Your task to perform on an android device: Open internet settings Image 0: 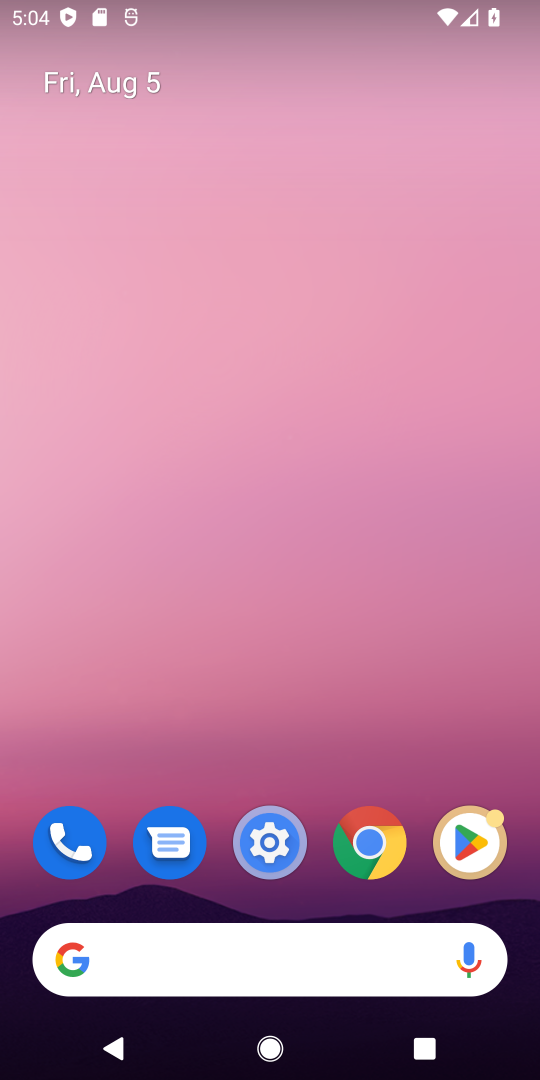
Step 0: press home button
Your task to perform on an android device: Open internet settings Image 1: 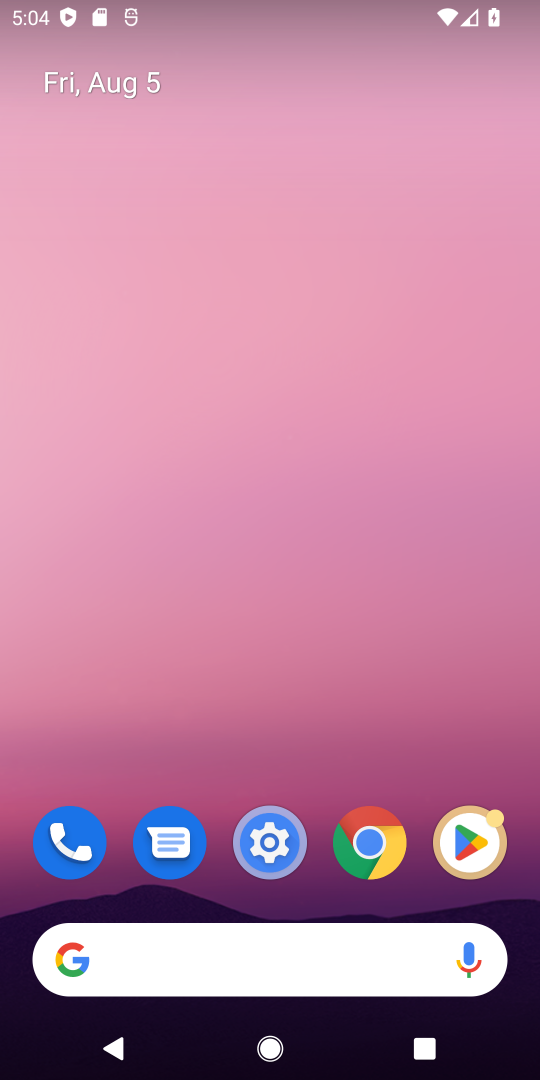
Step 1: drag from (303, 742) to (179, 105)
Your task to perform on an android device: Open internet settings Image 2: 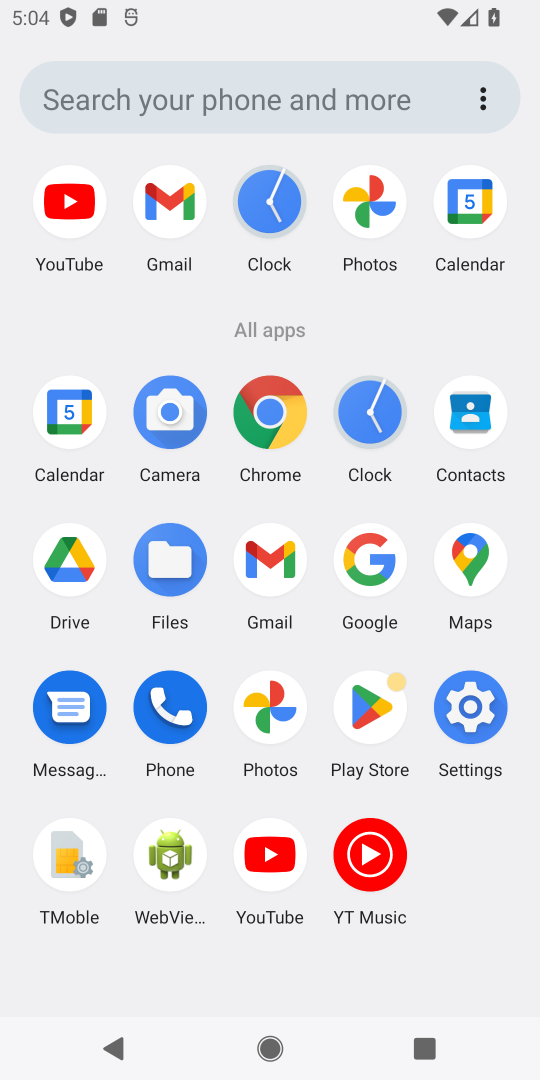
Step 2: click (459, 709)
Your task to perform on an android device: Open internet settings Image 3: 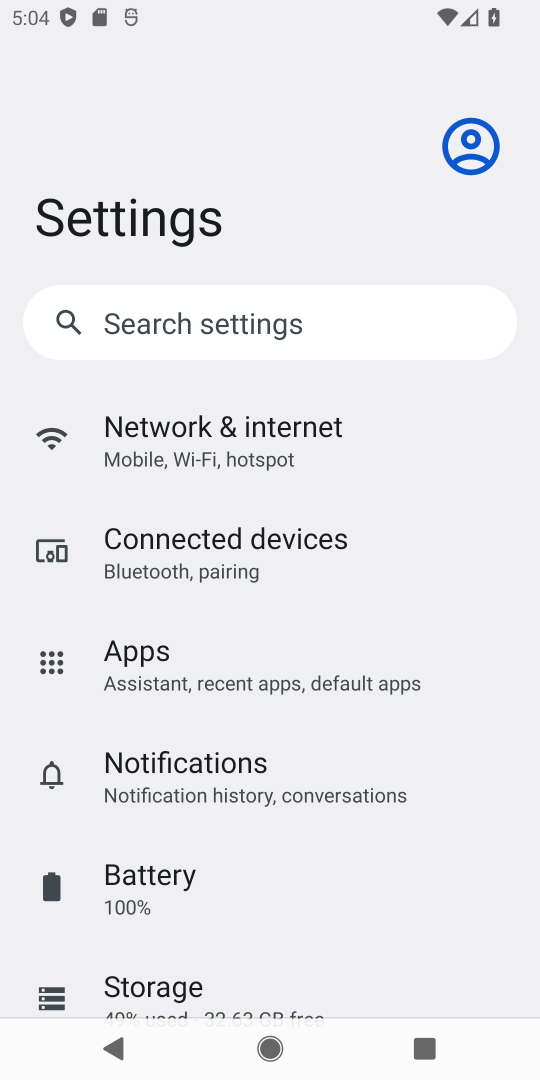
Step 3: click (196, 455)
Your task to perform on an android device: Open internet settings Image 4: 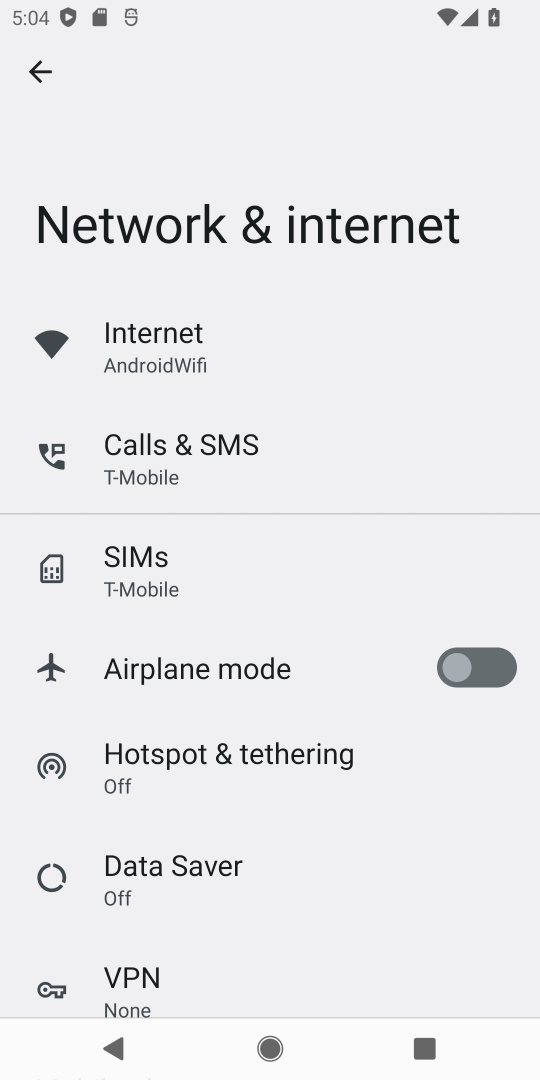
Step 4: task complete